Your task to perform on an android device: turn off location history Image 0: 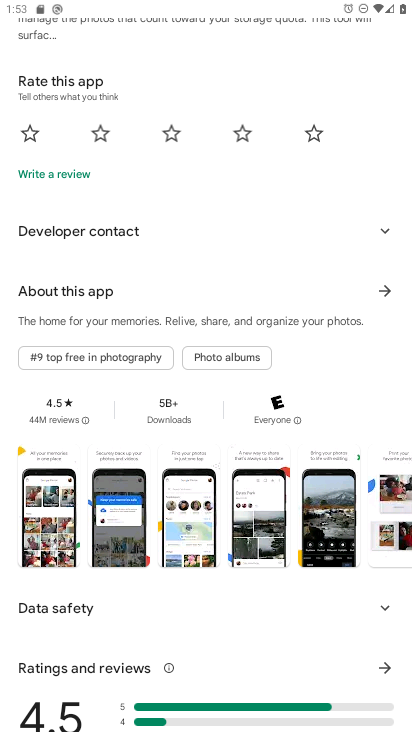
Step 0: press home button
Your task to perform on an android device: turn off location history Image 1: 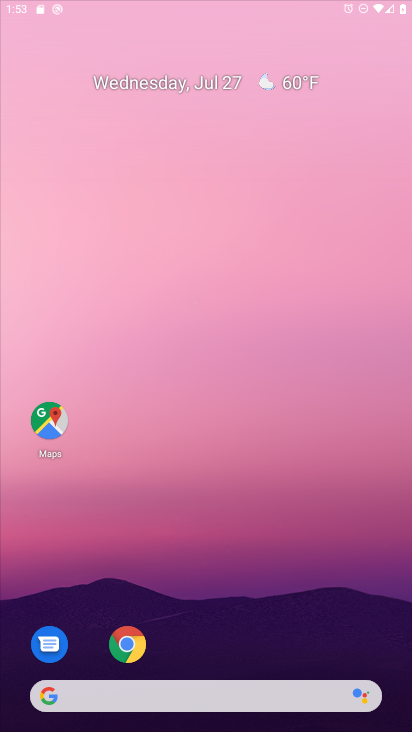
Step 1: drag from (153, 197) to (68, 12)
Your task to perform on an android device: turn off location history Image 2: 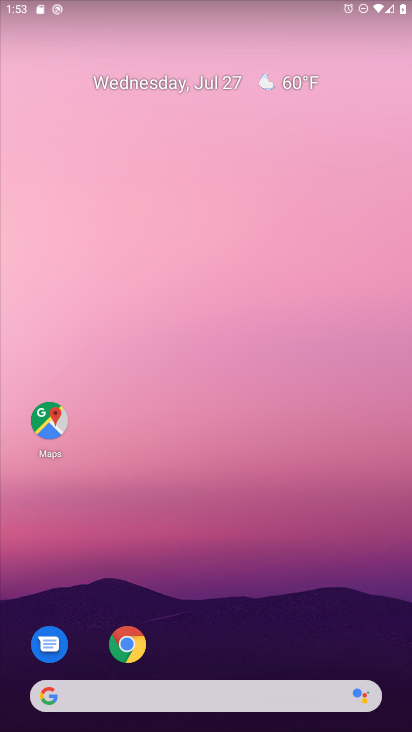
Step 2: drag from (247, 653) to (263, 1)
Your task to perform on an android device: turn off location history Image 3: 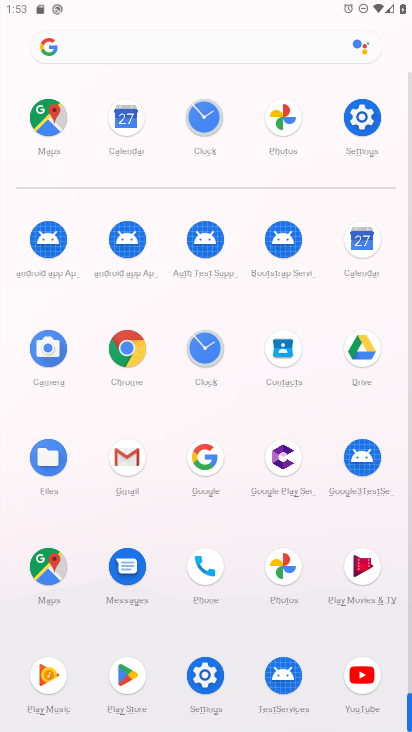
Step 3: click (210, 682)
Your task to perform on an android device: turn off location history Image 4: 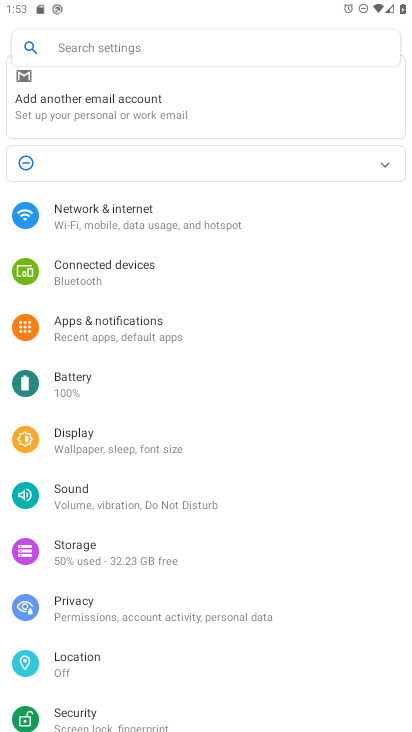
Step 4: click (104, 676)
Your task to perform on an android device: turn off location history Image 5: 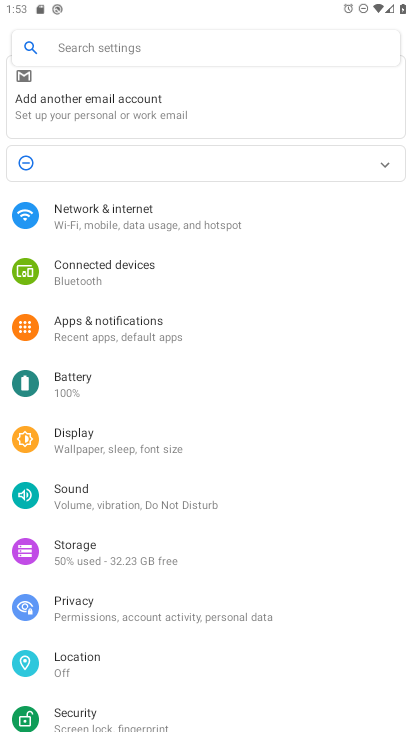
Step 5: click (104, 676)
Your task to perform on an android device: turn off location history Image 6: 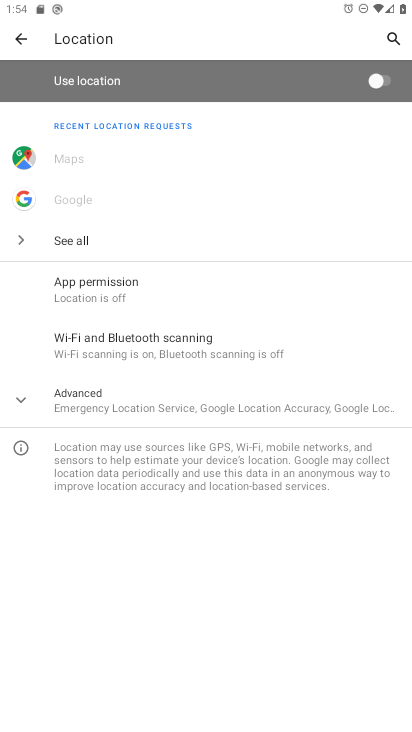
Step 6: click (90, 388)
Your task to perform on an android device: turn off location history Image 7: 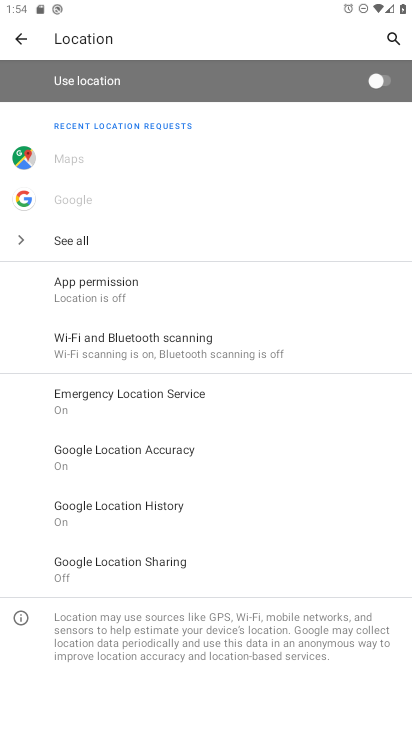
Step 7: click (198, 520)
Your task to perform on an android device: turn off location history Image 8: 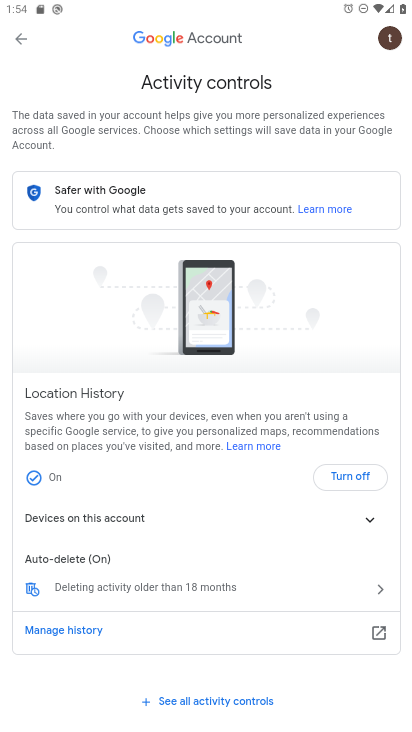
Step 8: click (353, 474)
Your task to perform on an android device: turn off location history Image 9: 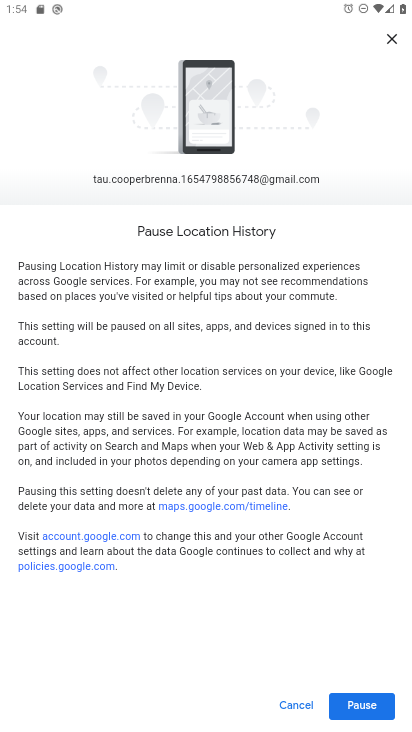
Step 9: click (365, 706)
Your task to perform on an android device: turn off location history Image 10: 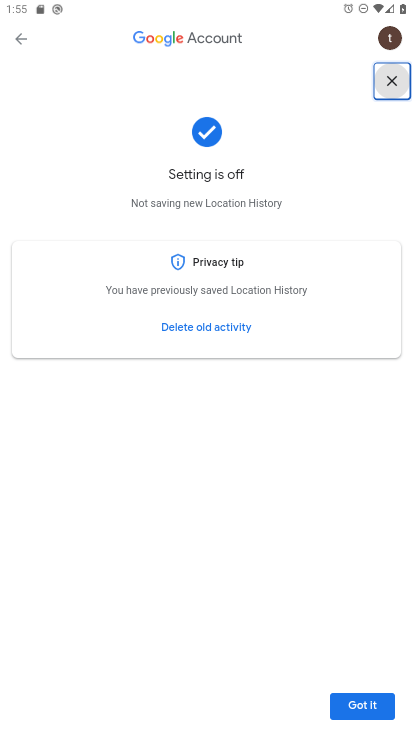
Step 10: click (375, 701)
Your task to perform on an android device: turn off location history Image 11: 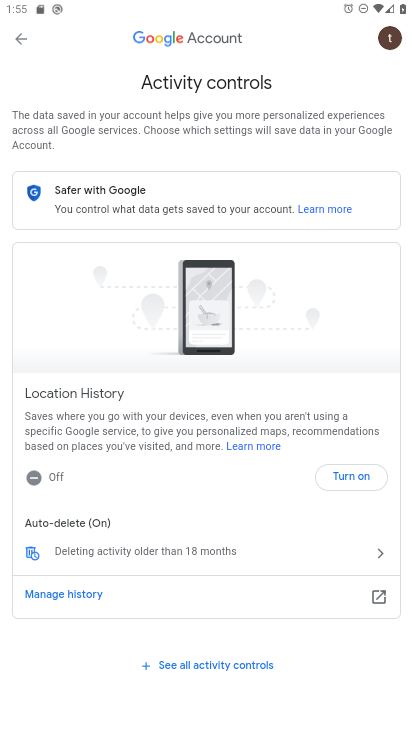
Step 11: task complete